Your task to perform on an android device: turn on sleep mode Image 0: 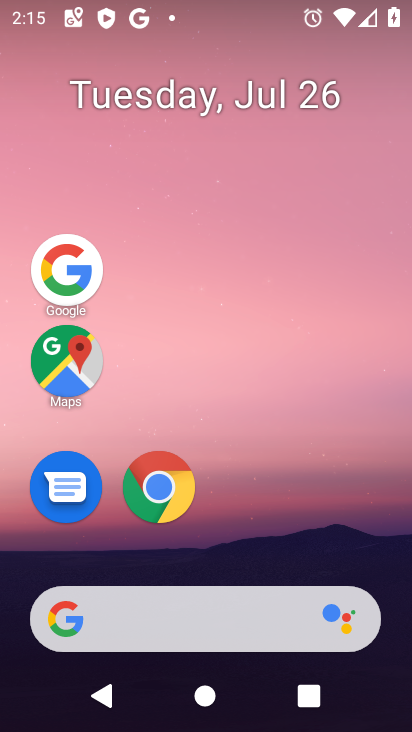
Step 0: drag from (207, 541) to (264, 163)
Your task to perform on an android device: turn on sleep mode Image 1: 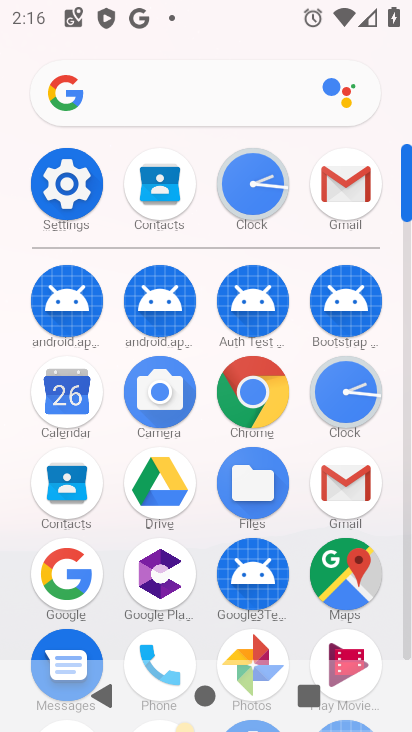
Step 1: click (52, 202)
Your task to perform on an android device: turn on sleep mode Image 2: 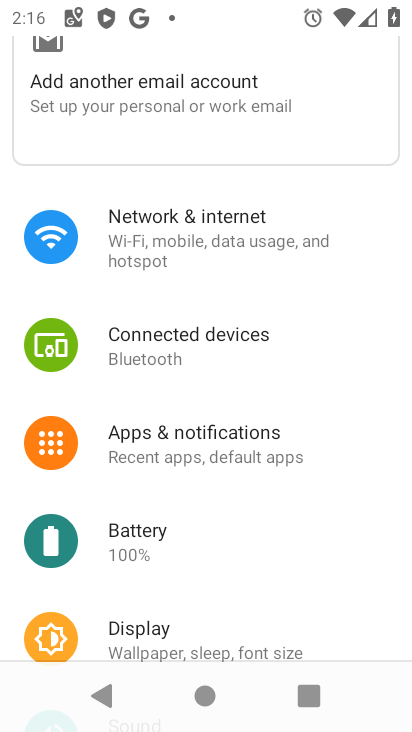
Step 2: click (159, 634)
Your task to perform on an android device: turn on sleep mode Image 3: 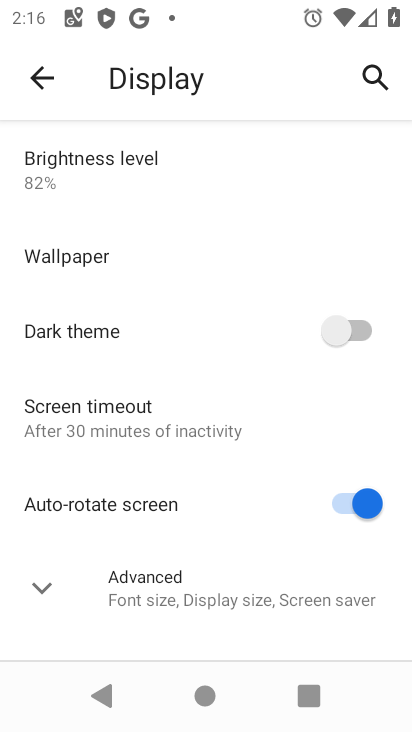
Step 3: click (114, 583)
Your task to perform on an android device: turn on sleep mode Image 4: 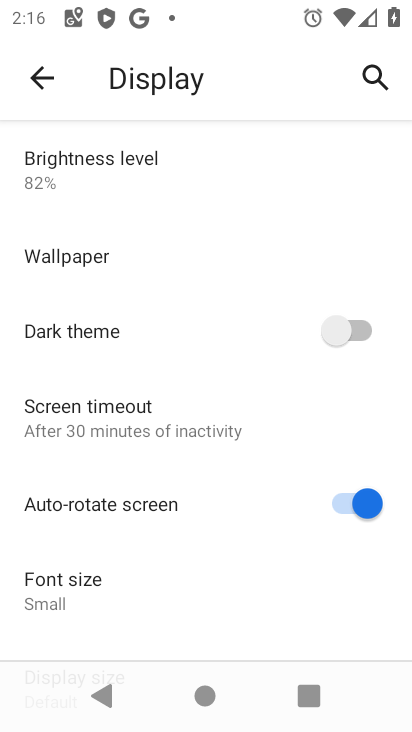
Step 4: task complete